Your task to perform on an android device: Search for vegetarian restaurants on Maps Image 0: 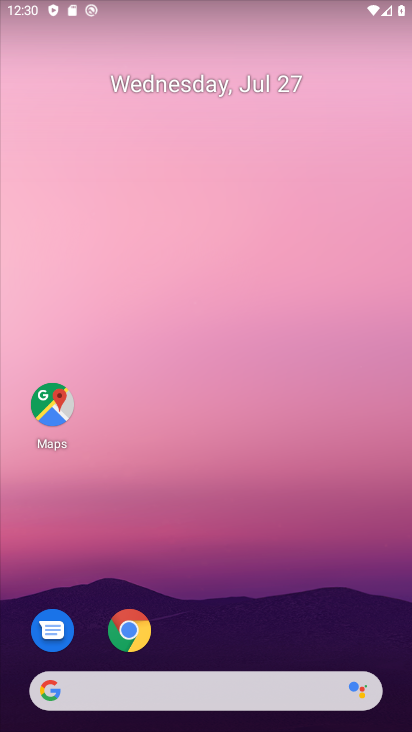
Step 0: drag from (237, 669) to (226, 339)
Your task to perform on an android device: Search for vegetarian restaurants on Maps Image 1: 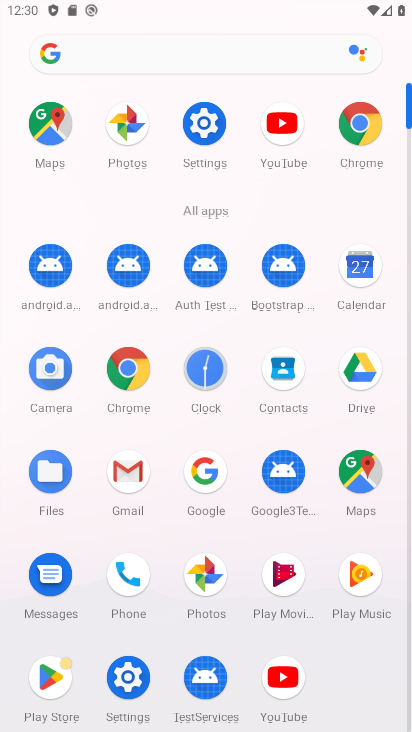
Step 1: click (42, 119)
Your task to perform on an android device: Search for vegetarian restaurants on Maps Image 2: 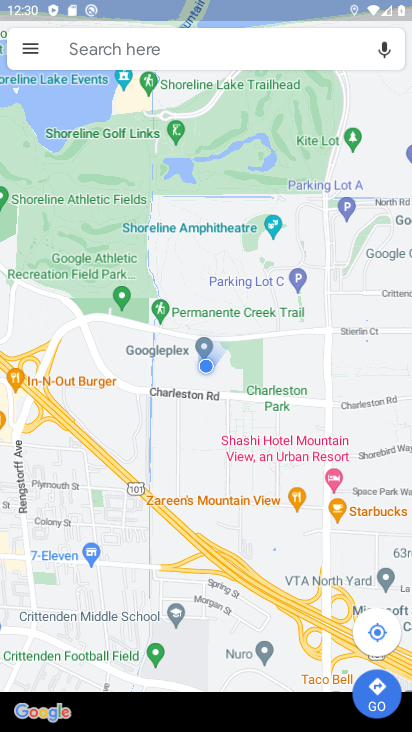
Step 2: click (109, 44)
Your task to perform on an android device: Search for vegetarian restaurants on Maps Image 3: 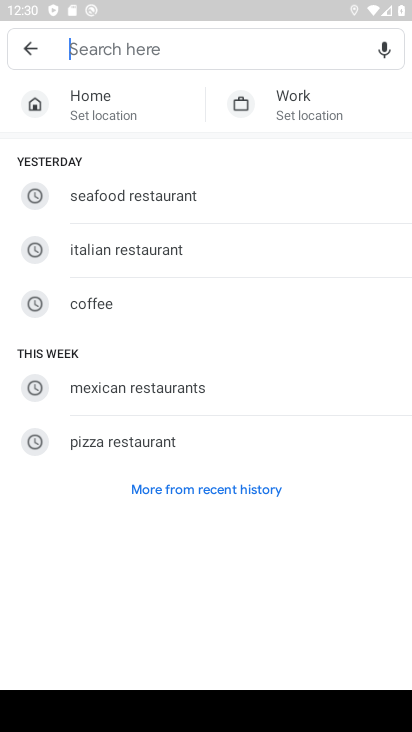
Step 3: click (161, 493)
Your task to perform on an android device: Search for vegetarian restaurants on Maps Image 4: 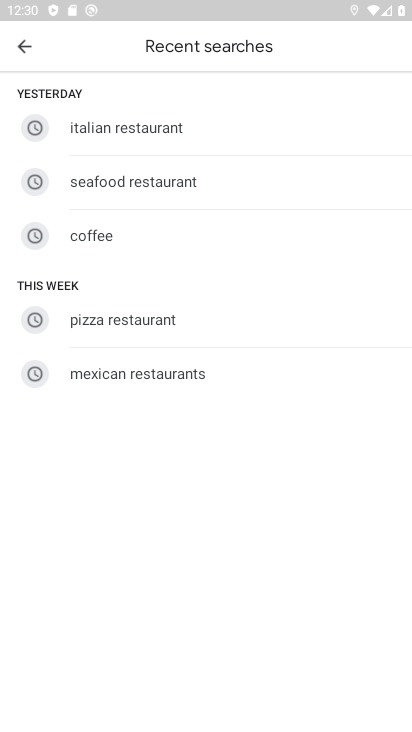
Step 4: click (23, 42)
Your task to perform on an android device: Search for vegetarian restaurants on Maps Image 5: 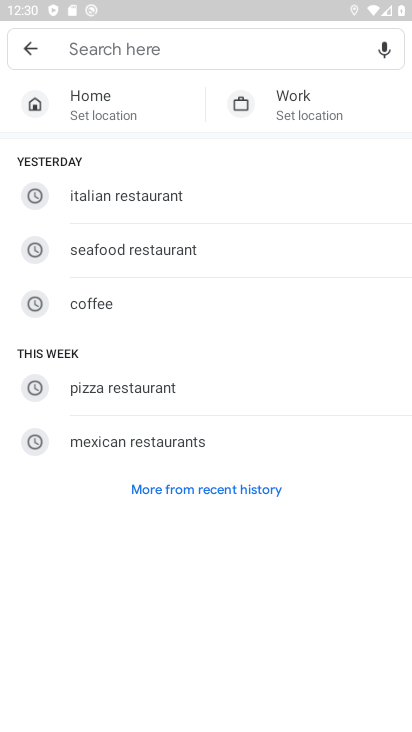
Step 5: type "vegetarian restaurant"
Your task to perform on an android device: Search for vegetarian restaurants on Maps Image 6: 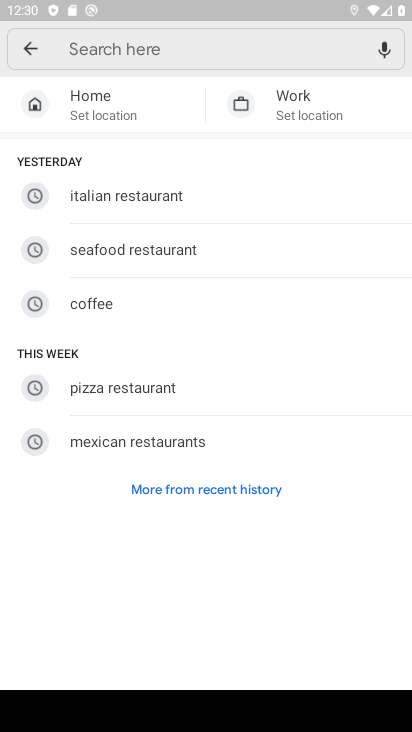
Step 6: click (101, 47)
Your task to perform on an android device: Search for vegetarian restaurants on Maps Image 7: 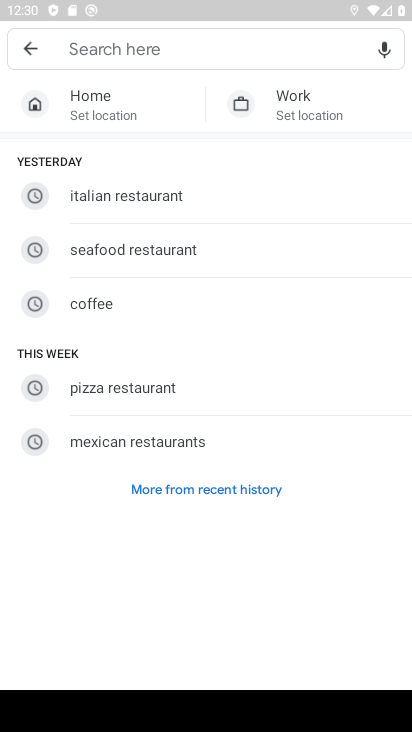
Step 7: type "vegetarian restaurant"
Your task to perform on an android device: Search for vegetarian restaurants on Maps Image 8: 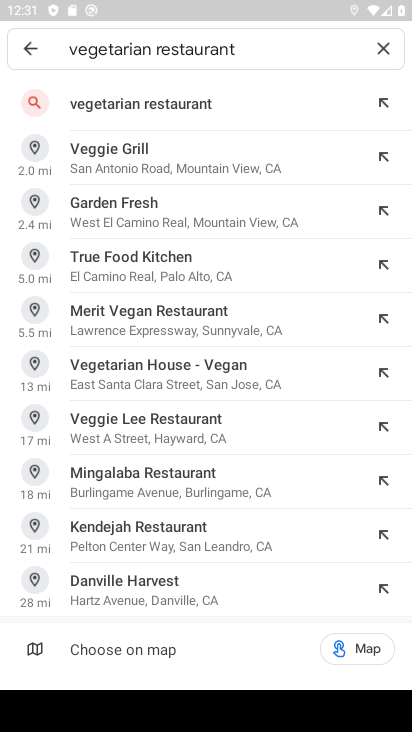
Step 8: click (174, 103)
Your task to perform on an android device: Search for vegetarian restaurants on Maps Image 9: 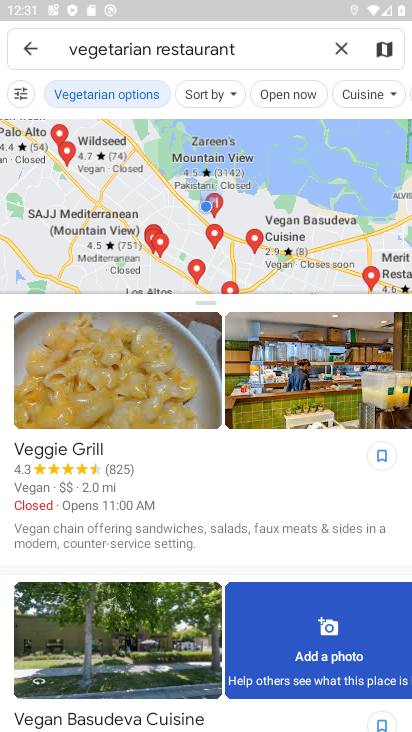
Step 9: task complete